Your task to perform on an android device: Search for pizza restaurants on Maps Image 0: 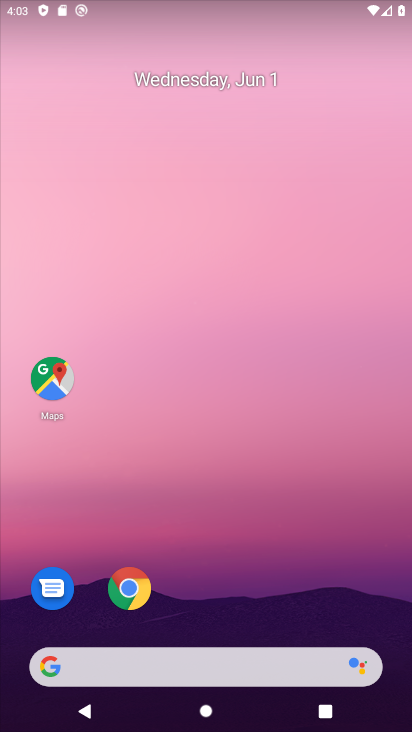
Step 0: click (66, 381)
Your task to perform on an android device: Search for pizza restaurants on Maps Image 1: 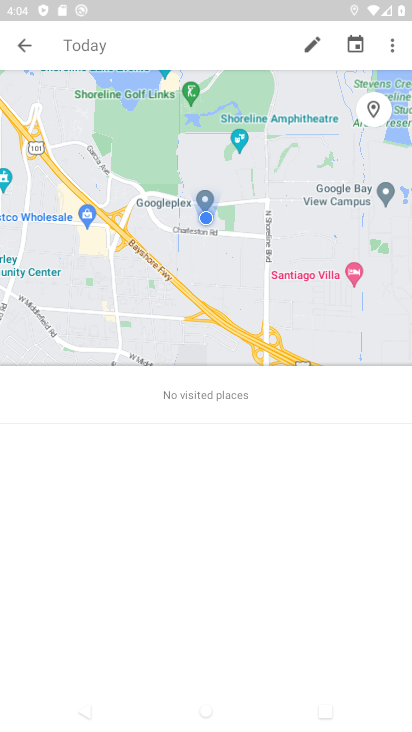
Step 1: click (27, 46)
Your task to perform on an android device: Search for pizza restaurants on Maps Image 2: 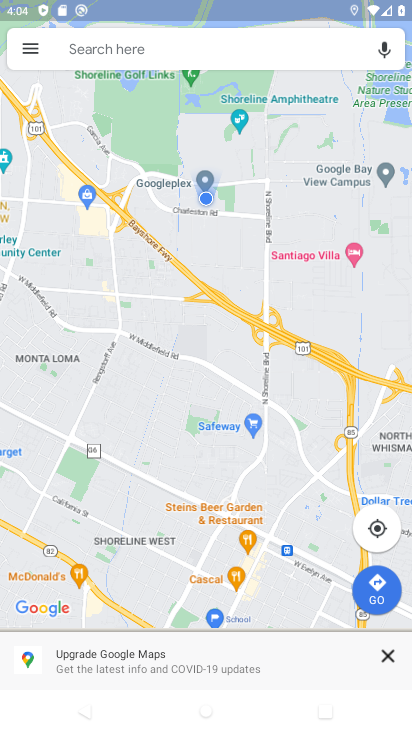
Step 2: click (95, 67)
Your task to perform on an android device: Search for pizza restaurants on Maps Image 3: 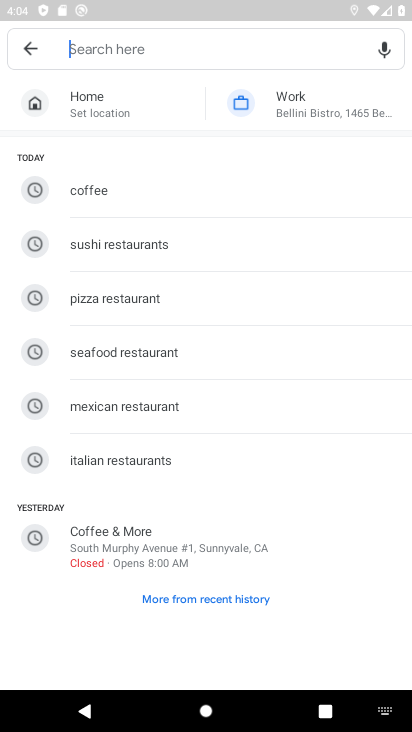
Step 3: click (235, 302)
Your task to perform on an android device: Search for pizza restaurants on Maps Image 4: 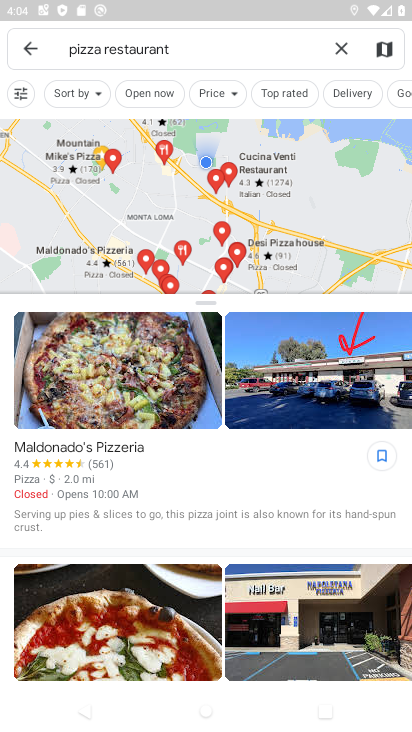
Step 4: task complete